Your task to perform on an android device: Go to Yahoo.com Image 0: 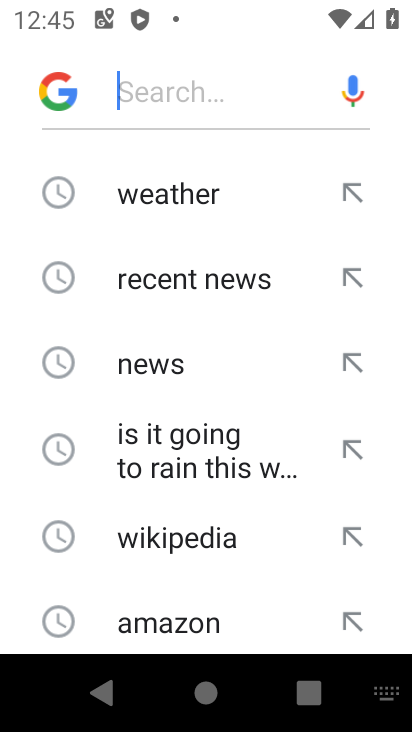
Step 0: press home button
Your task to perform on an android device: Go to Yahoo.com Image 1: 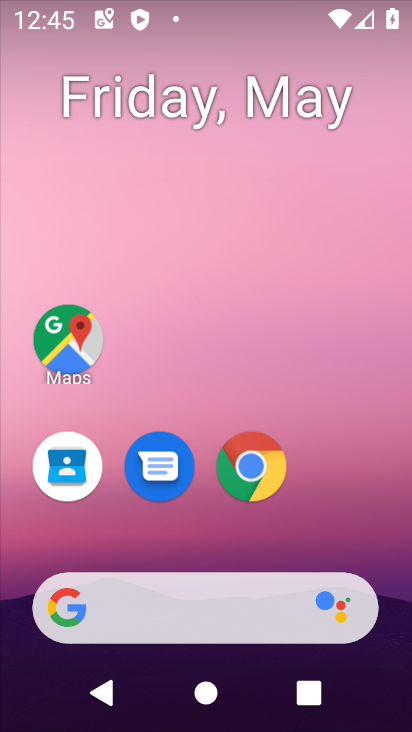
Step 1: drag from (219, 537) to (204, 58)
Your task to perform on an android device: Go to Yahoo.com Image 2: 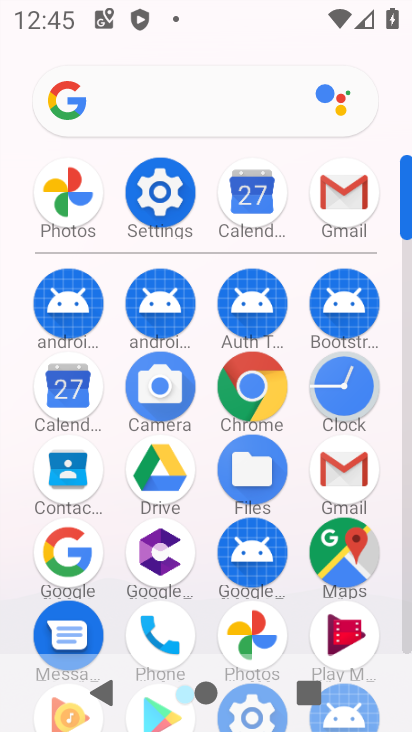
Step 2: click (250, 389)
Your task to perform on an android device: Go to Yahoo.com Image 3: 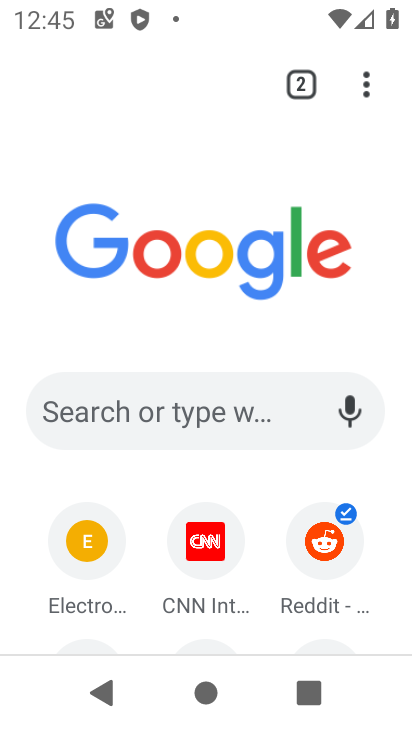
Step 3: drag from (232, 570) to (272, 241)
Your task to perform on an android device: Go to Yahoo.com Image 4: 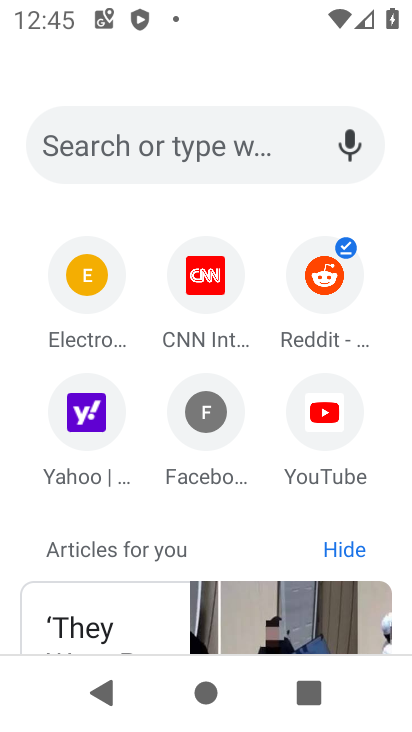
Step 4: click (90, 419)
Your task to perform on an android device: Go to Yahoo.com Image 5: 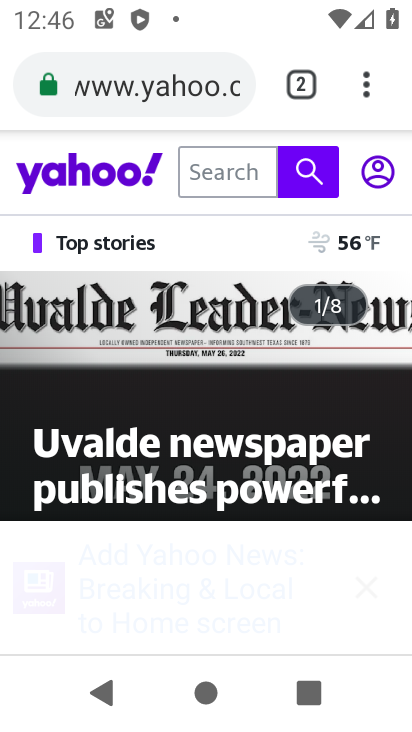
Step 5: task complete